Your task to perform on an android device: Turn off the flashlight Image 0: 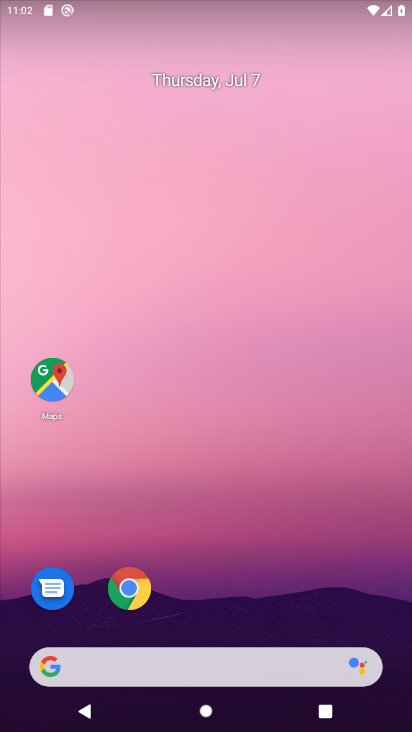
Step 0: drag from (284, 102) to (294, 381)
Your task to perform on an android device: Turn off the flashlight Image 1: 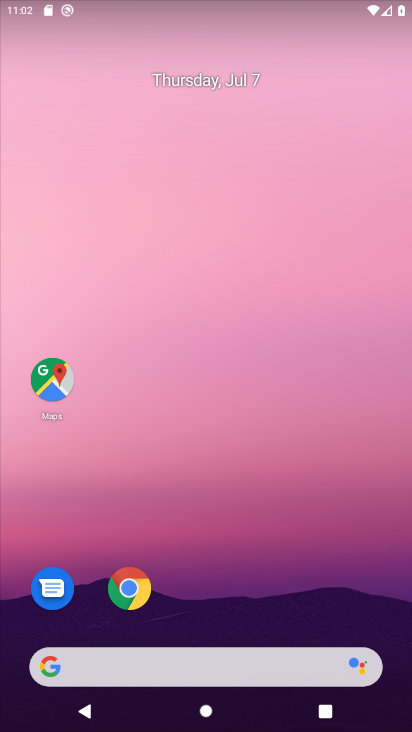
Step 1: task complete